Your task to perform on an android device: make emails show in primary in the gmail app Image 0: 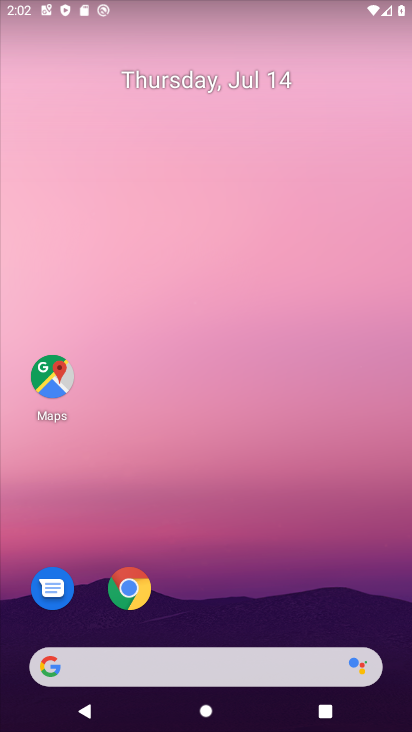
Step 0: drag from (243, 698) to (175, 88)
Your task to perform on an android device: make emails show in primary in the gmail app Image 1: 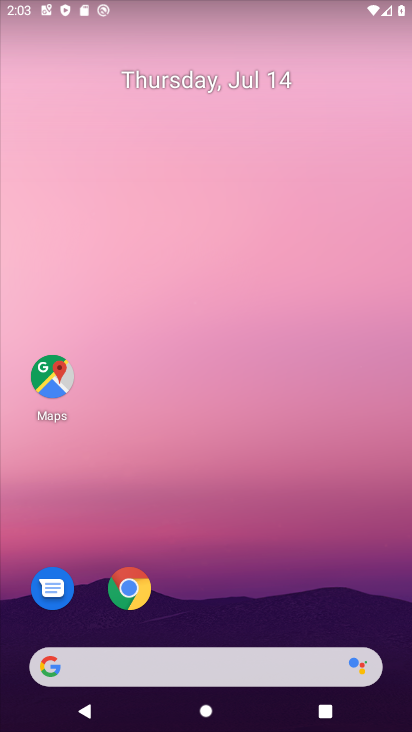
Step 1: drag from (280, 631) to (226, 255)
Your task to perform on an android device: make emails show in primary in the gmail app Image 2: 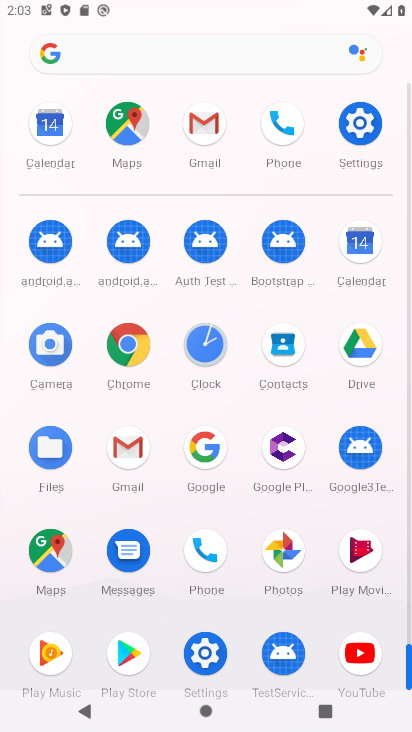
Step 2: click (123, 456)
Your task to perform on an android device: make emails show in primary in the gmail app Image 3: 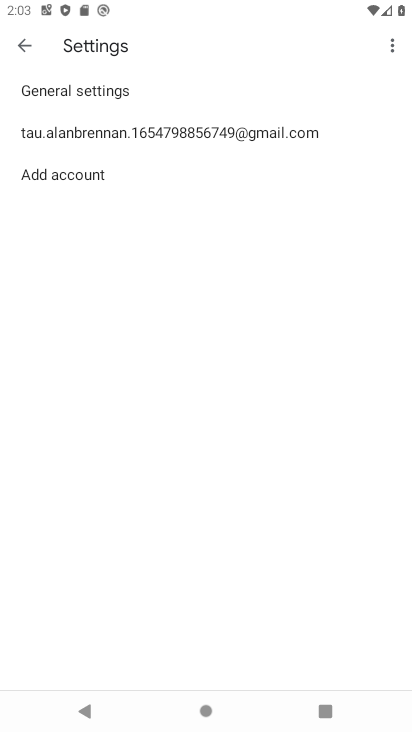
Step 3: click (152, 138)
Your task to perform on an android device: make emails show in primary in the gmail app Image 4: 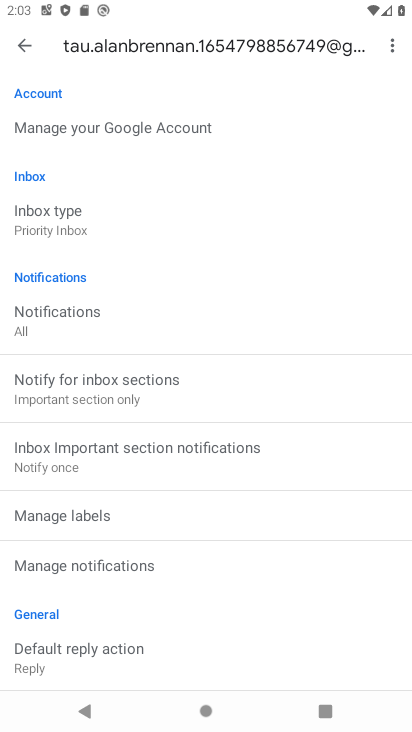
Step 4: click (72, 215)
Your task to perform on an android device: make emails show in primary in the gmail app Image 5: 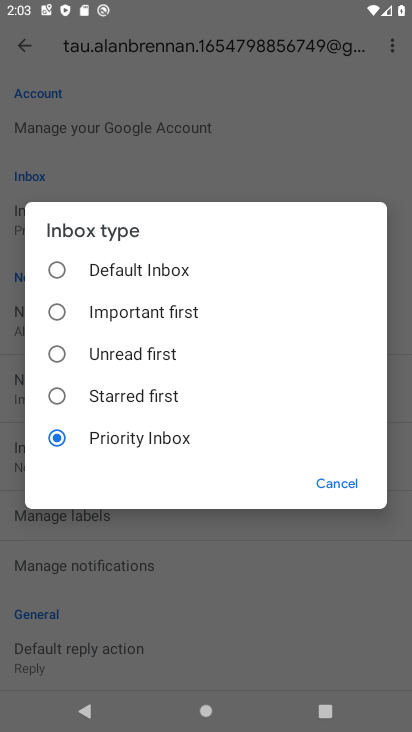
Step 5: click (132, 276)
Your task to perform on an android device: make emails show in primary in the gmail app Image 6: 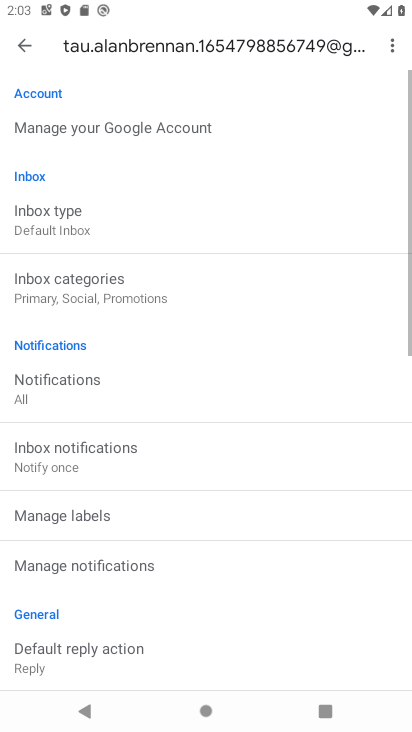
Step 6: click (83, 289)
Your task to perform on an android device: make emails show in primary in the gmail app Image 7: 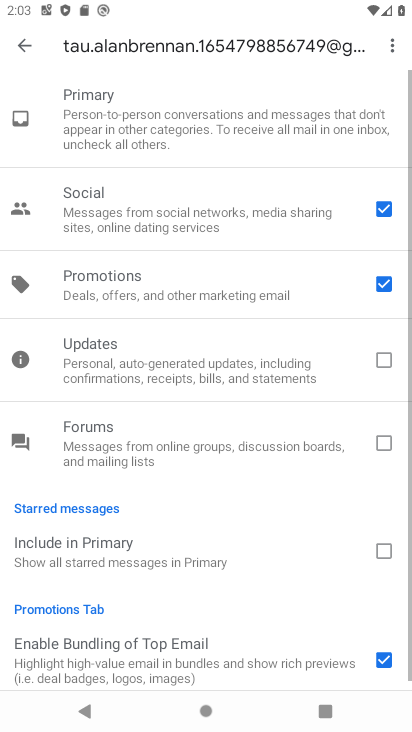
Step 7: click (384, 282)
Your task to perform on an android device: make emails show in primary in the gmail app Image 8: 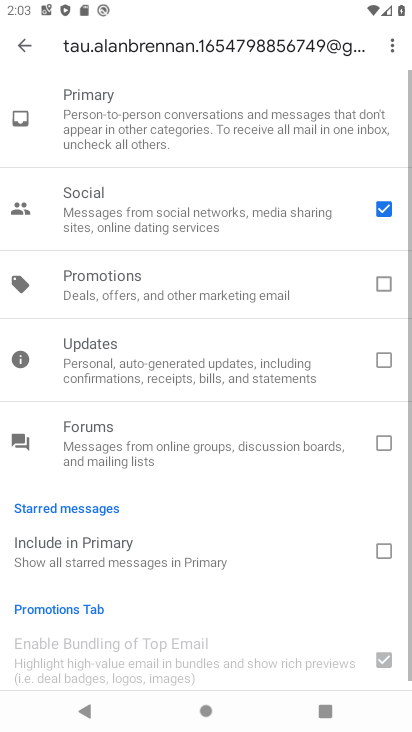
Step 8: click (387, 206)
Your task to perform on an android device: make emails show in primary in the gmail app Image 9: 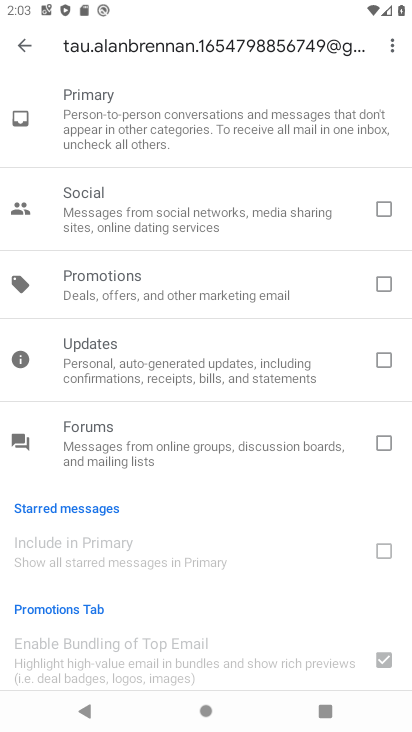
Step 9: task complete